Your task to perform on an android device: turn off improve location accuracy Image 0: 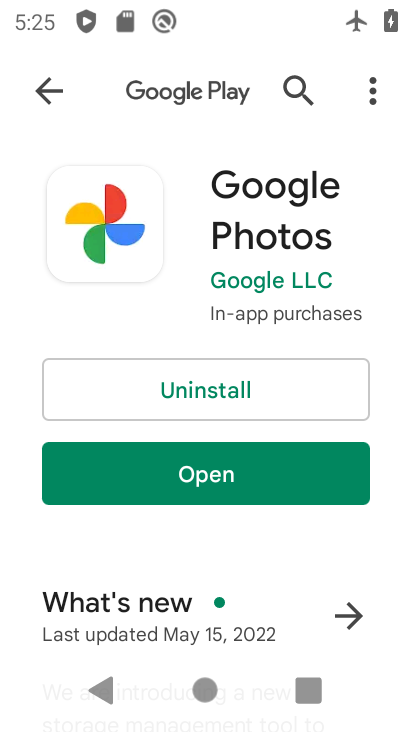
Step 0: press home button
Your task to perform on an android device: turn off improve location accuracy Image 1: 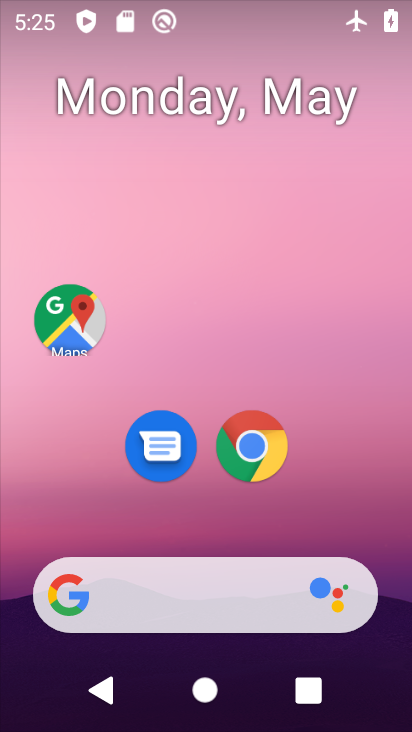
Step 1: drag from (346, 492) to (227, 79)
Your task to perform on an android device: turn off improve location accuracy Image 2: 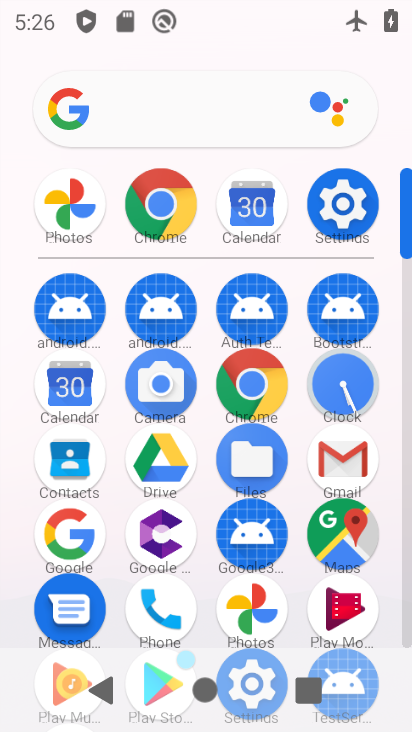
Step 2: click (344, 200)
Your task to perform on an android device: turn off improve location accuracy Image 3: 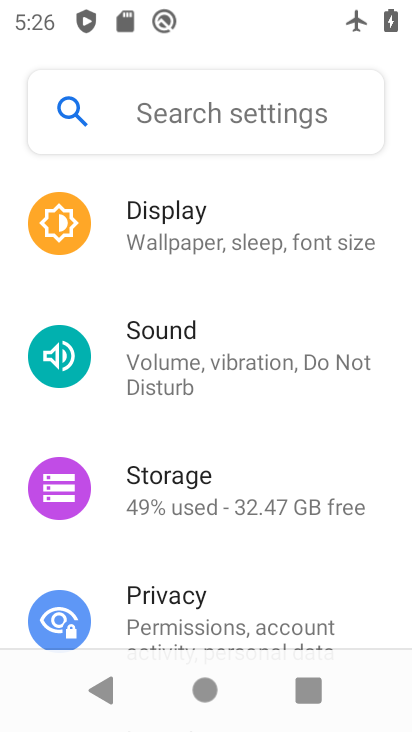
Step 3: drag from (223, 558) to (203, 249)
Your task to perform on an android device: turn off improve location accuracy Image 4: 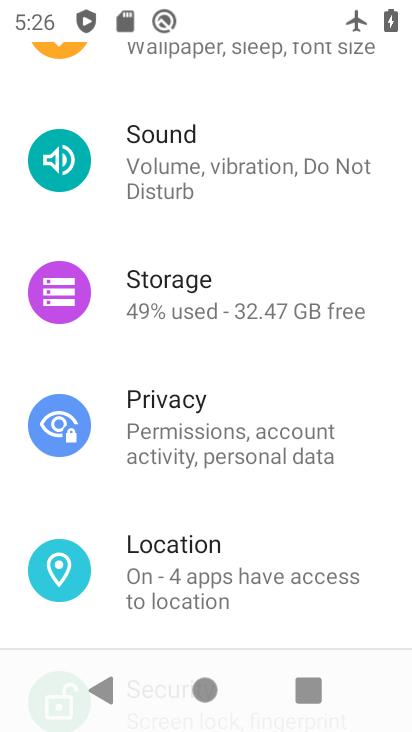
Step 4: click (194, 545)
Your task to perform on an android device: turn off improve location accuracy Image 5: 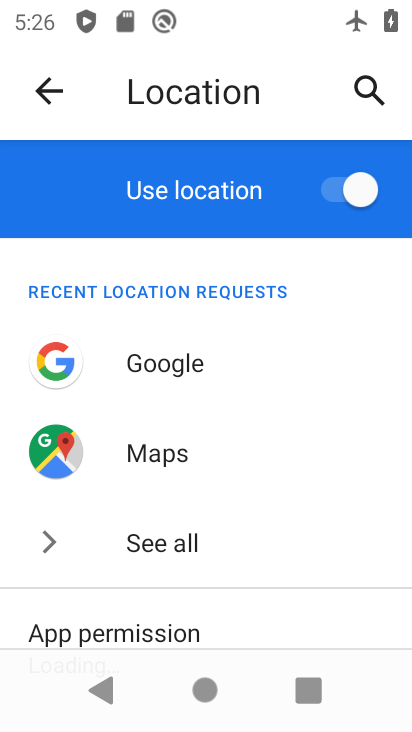
Step 5: drag from (227, 453) to (222, 260)
Your task to perform on an android device: turn off improve location accuracy Image 6: 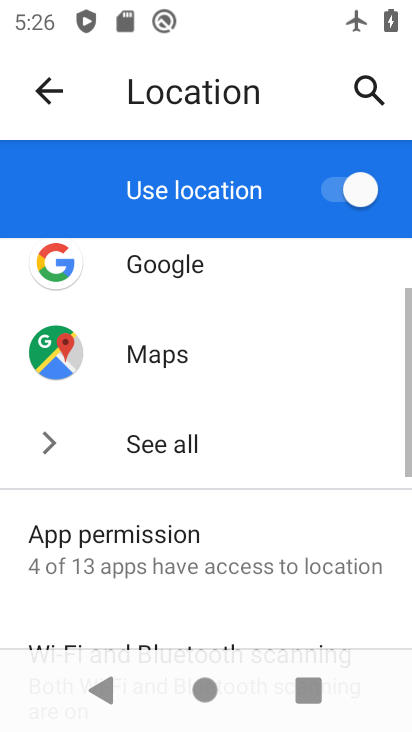
Step 6: click (55, 451)
Your task to perform on an android device: turn off improve location accuracy Image 7: 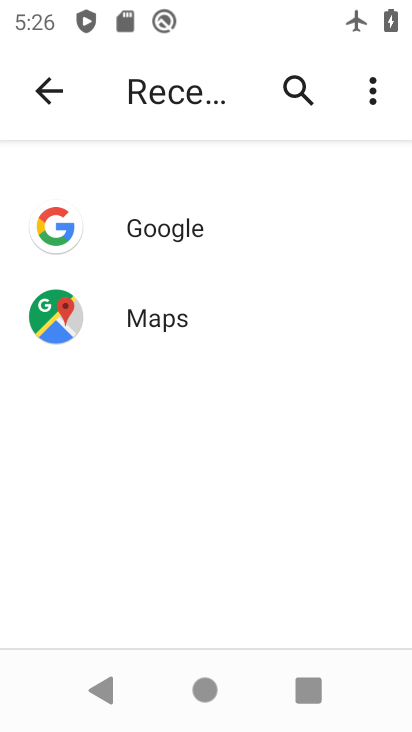
Step 7: click (36, 83)
Your task to perform on an android device: turn off improve location accuracy Image 8: 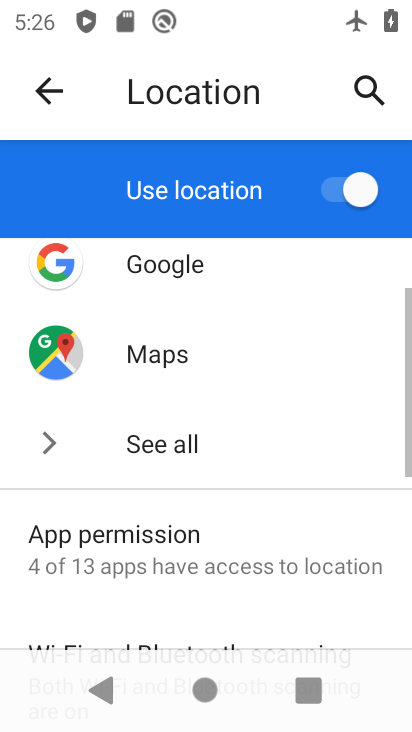
Step 8: drag from (258, 401) to (292, 4)
Your task to perform on an android device: turn off improve location accuracy Image 9: 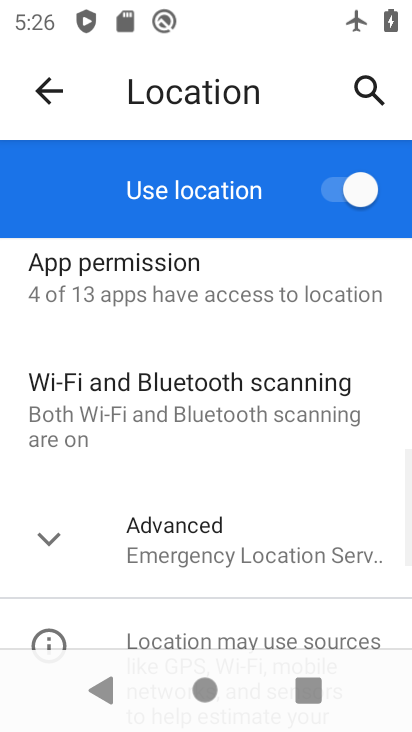
Step 9: drag from (217, 479) to (182, 268)
Your task to perform on an android device: turn off improve location accuracy Image 10: 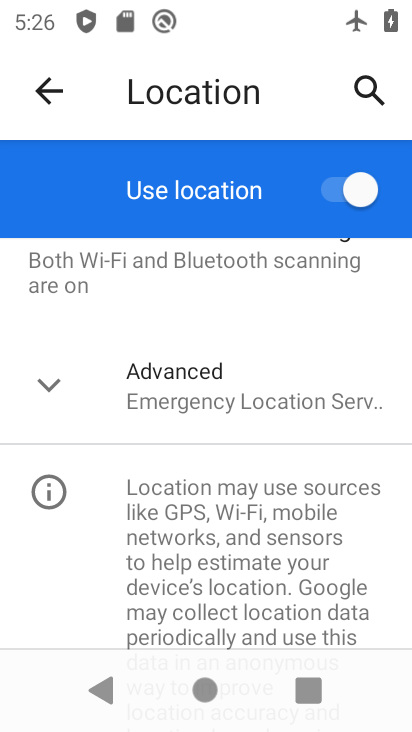
Step 10: click (60, 382)
Your task to perform on an android device: turn off improve location accuracy Image 11: 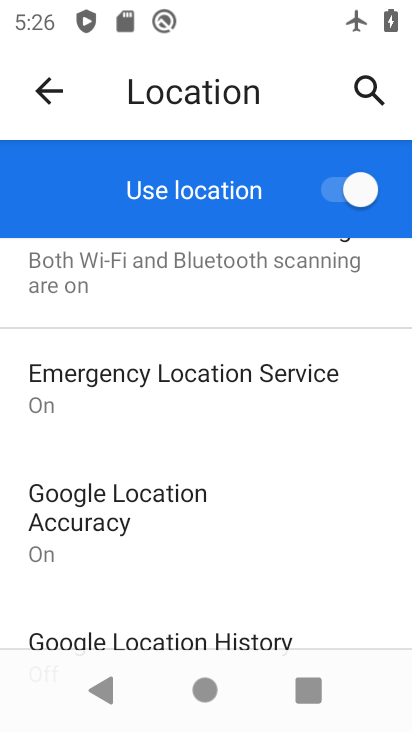
Step 11: click (93, 500)
Your task to perform on an android device: turn off improve location accuracy Image 12: 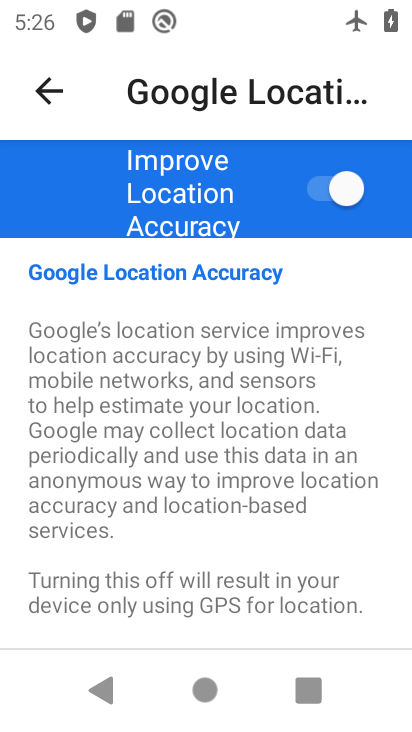
Step 12: click (339, 175)
Your task to perform on an android device: turn off improve location accuracy Image 13: 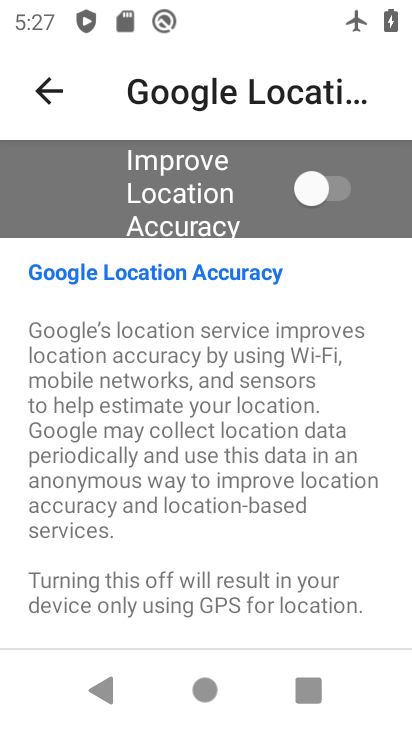
Step 13: task complete